Your task to perform on an android device: Go to notification settings Image 0: 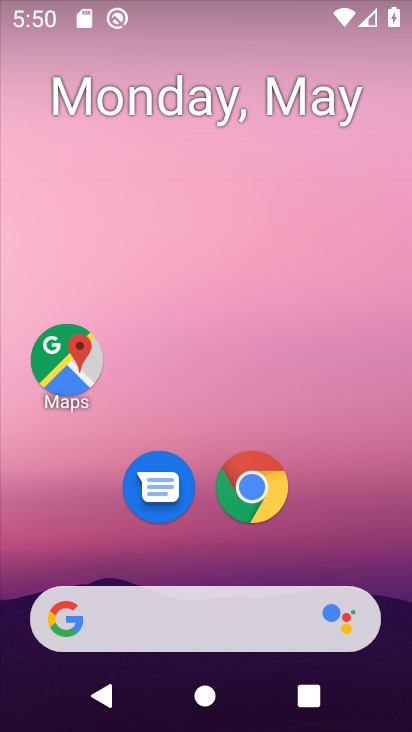
Step 0: drag from (203, 563) to (213, 6)
Your task to perform on an android device: Go to notification settings Image 1: 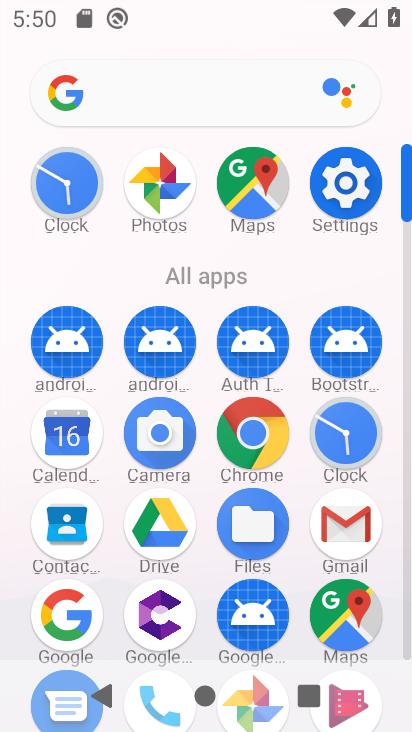
Step 1: click (341, 183)
Your task to perform on an android device: Go to notification settings Image 2: 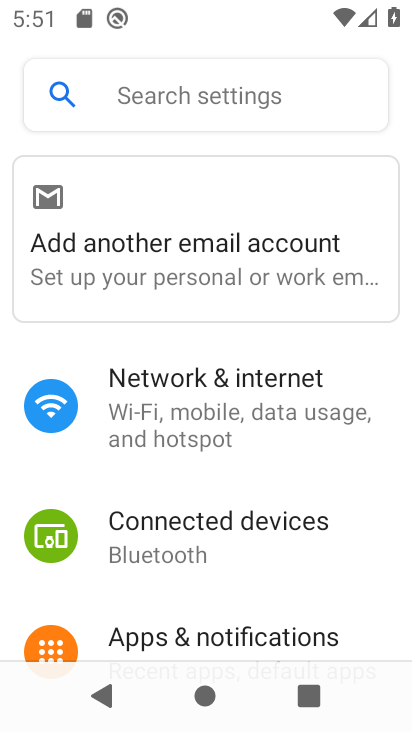
Step 2: click (227, 625)
Your task to perform on an android device: Go to notification settings Image 3: 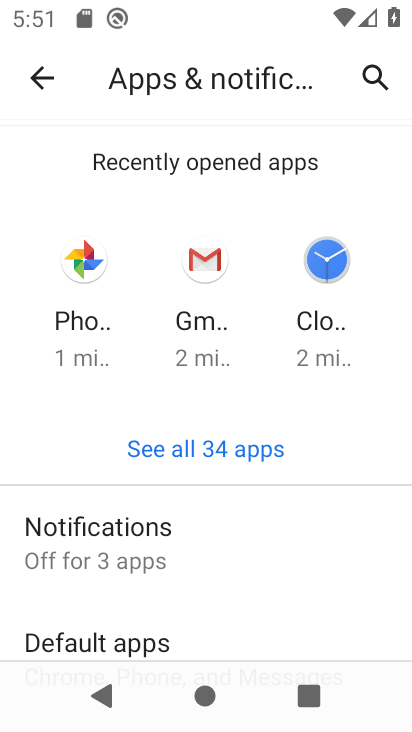
Step 3: click (179, 552)
Your task to perform on an android device: Go to notification settings Image 4: 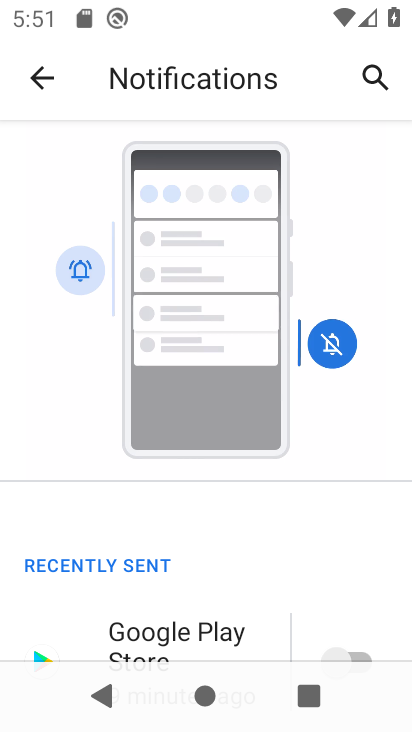
Step 4: drag from (261, 260) to (273, 144)
Your task to perform on an android device: Go to notification settings Image 5: 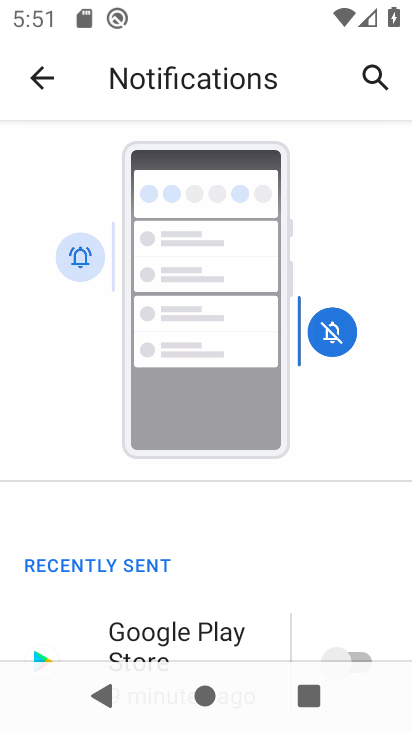
Step 5: click (254, 203)
Your task to perform on an android device: Go to notification settings Image 6: 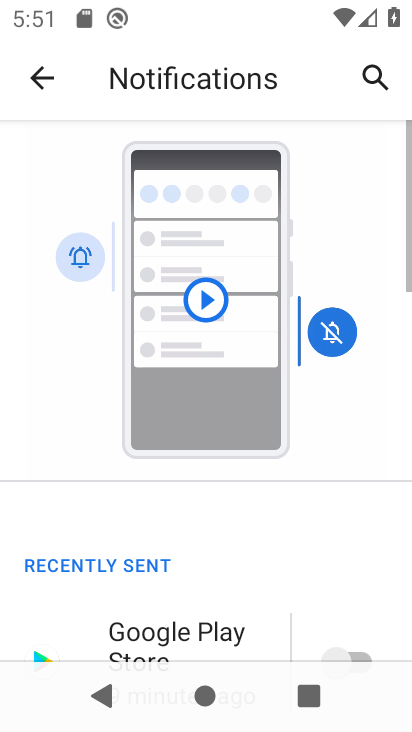
Step 6: drag from (255, 601) to (247, 67)
Your task to perform on an android device: Go to notification settings Image 7: 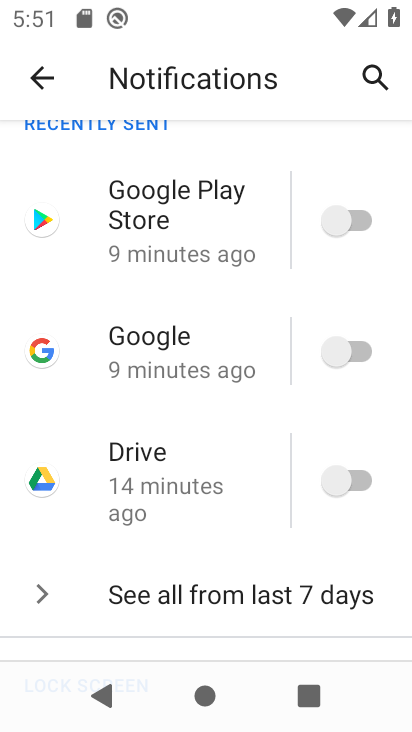
Step 7: drag from (193, 572) to (218, 108)
Your task to perform on an android device: Go to notification settings Image 8: 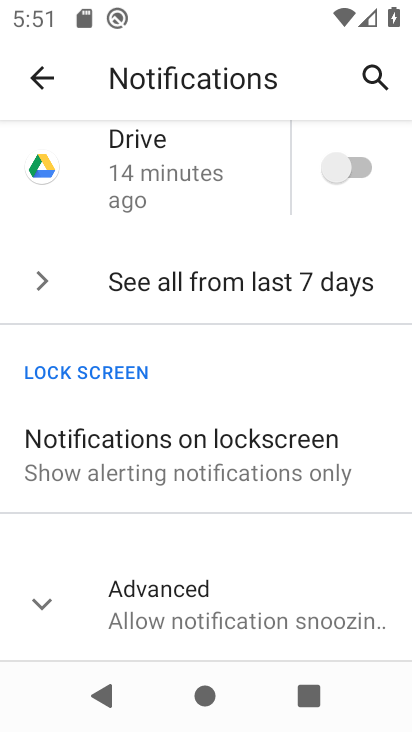
Step 8: click (23, 599)
Your task to perform on an android device: Go to notification settings Image 9: 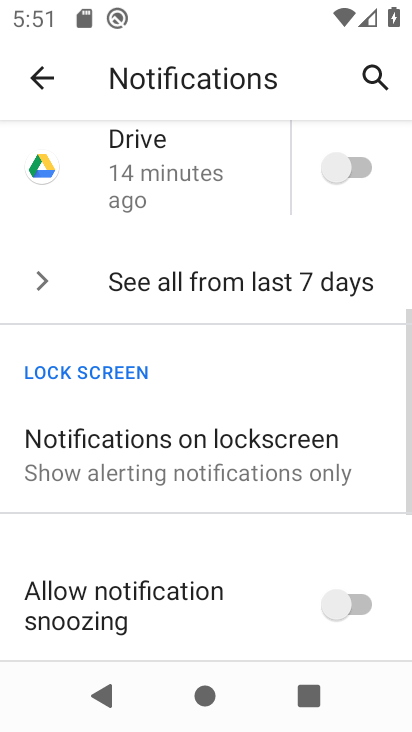
Step 9: task complete